Your task to perform on an android device: toggle wifi Image 0: 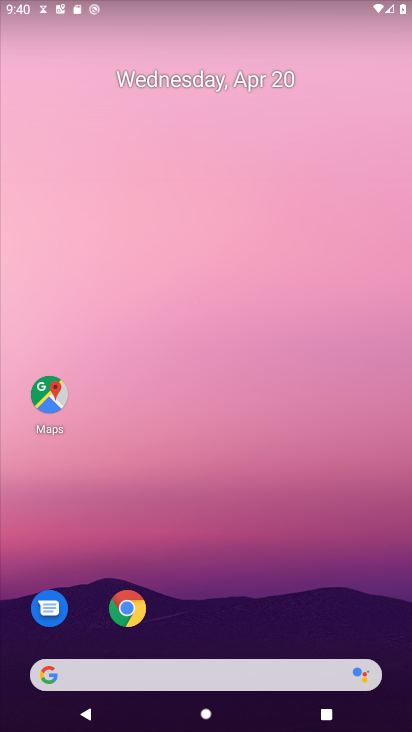
Step 0: drag from (217, 632) to (196, 170)
Your task to perform on an android device: toggle wifi Image 1: 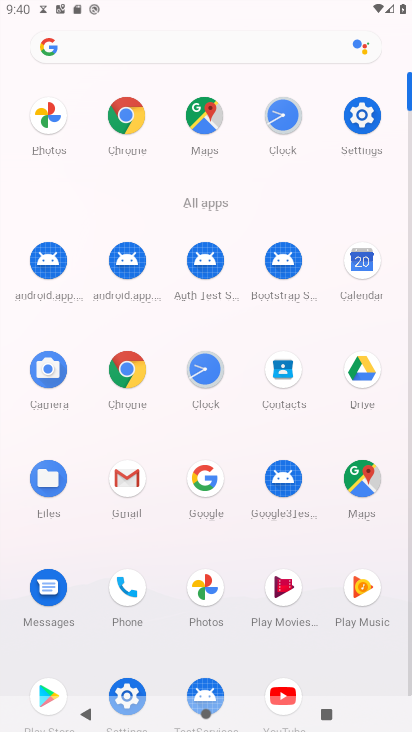
Step 1: click (134, 687)
Your task to perform on an android device: toggle wifi Image 2: 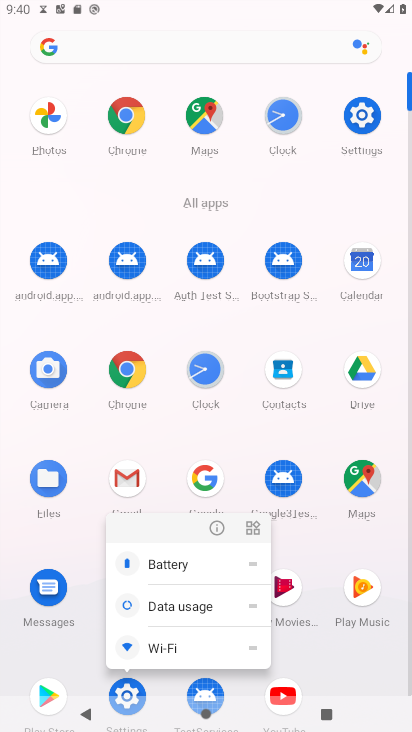
Step 2: click (222, 526)
Your task to perform on an android device: toggle wifi Image 3: 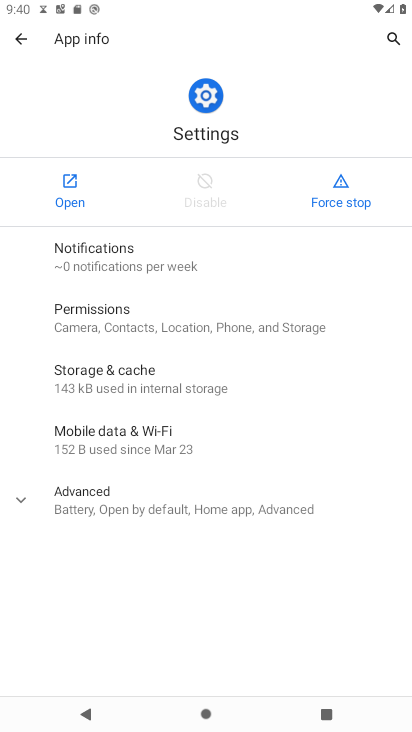
Step 3: click (75, 185)
Your task to perform on an android device: toggle wifi Image 4: 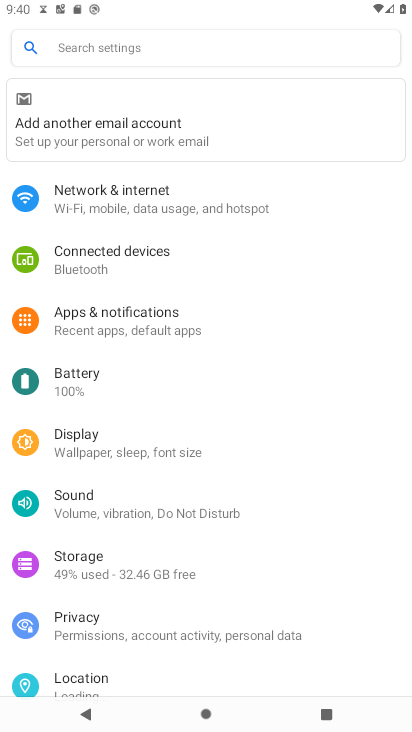
Step 4: click (153, 193)
Your task to perform on an android device: toggle wifi Image 5: 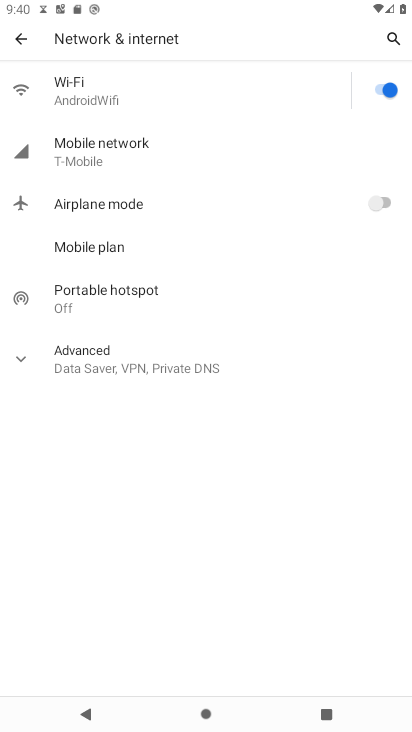
Step 5: click (381, 96)
Your task to perform on an android device: toggle wifi Image 6: 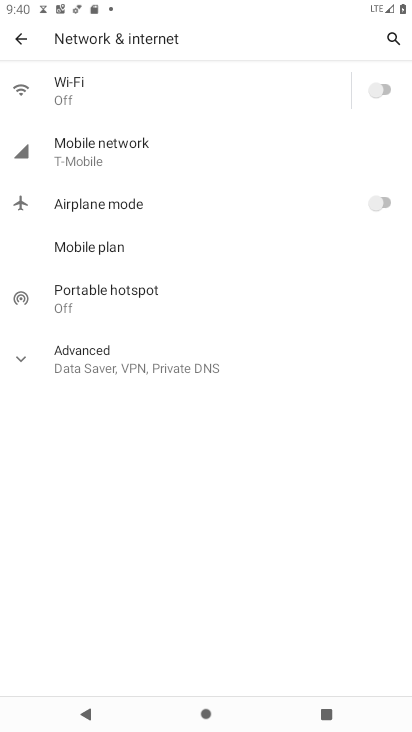
Step 6: task complete